Your task to perform on an android device: Open the phone app and click the voicemail tab. Image 0: 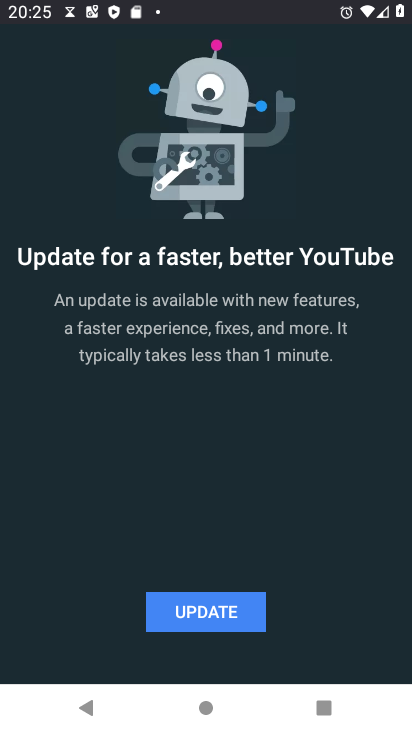
Step 0: press back button
Your task to perform on an android device: Open the phone app and click the voicemail tab. Image 1: 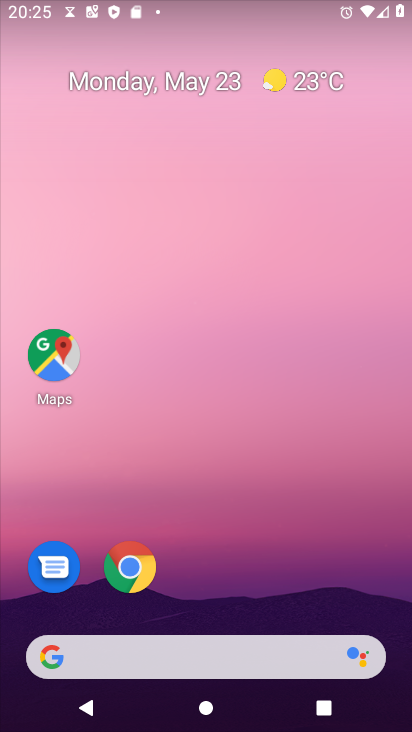
Step 1: drag from (245, 528) to (315, 63)
Your task to perform on an android device: Open the phone app and click the voicemail tab. Image 2: 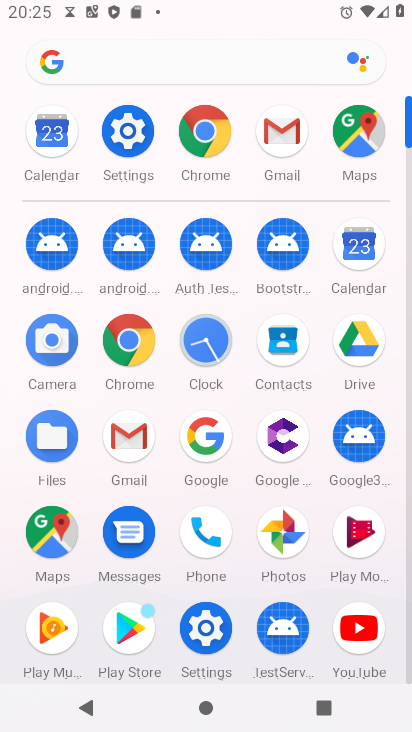
Step 2: click (202, 525)
Your task to perform on an android device: Open the phone app and click the voicemail tab. Image 3: 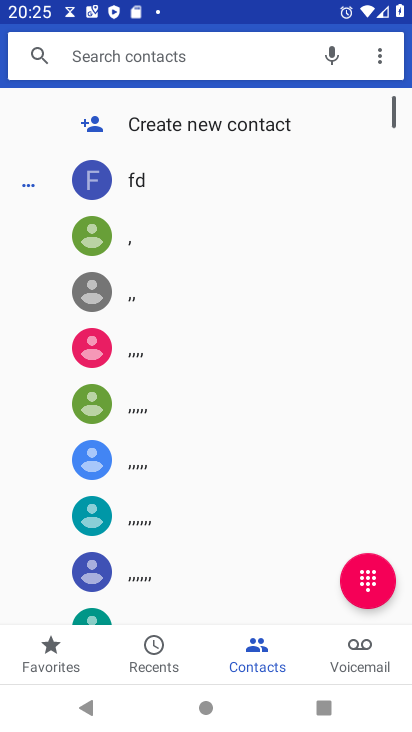
Step 3: click (344, 655)
Your task to perform on an android device: Open the phone app and click the voicemail tab. Image 4: 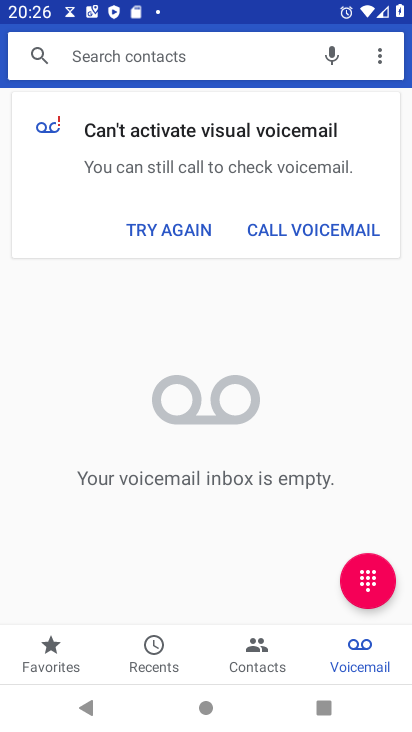
Step 4: task complete